Your task to perform on an android device: Open Google Chrome and click the shortcut for Amazon.com Image 0: 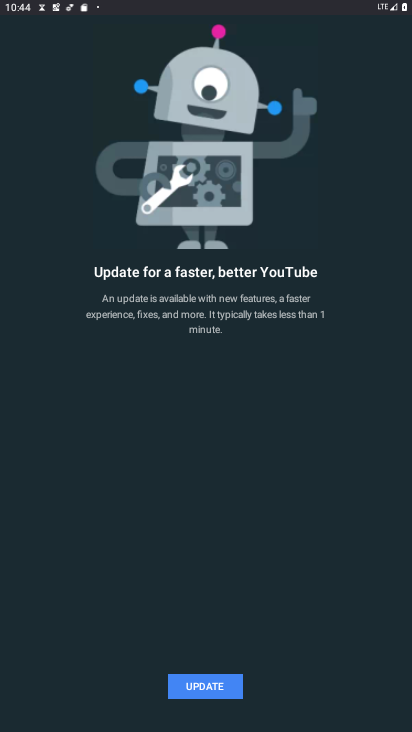
Step 0: press home button
Your task to perform on an android device: Open Google Chrome and click the shortcut for Amazon.com Image 1: 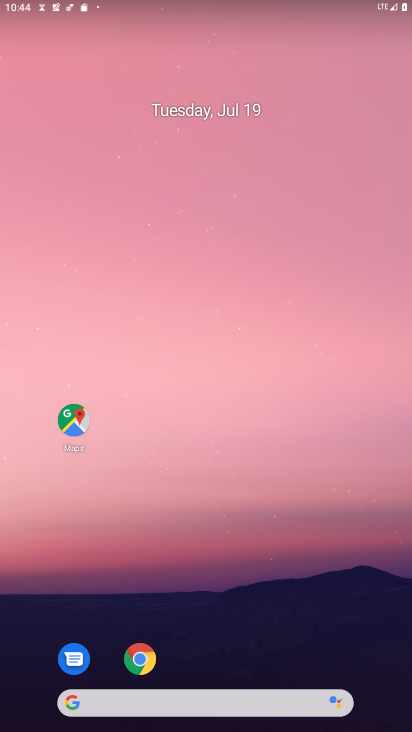
Step 1: drag from (202, 677) to (245, 239)
Your task to perform on an android device: Open Google Chrome and click the shortcut for Amazon.com Image 2: 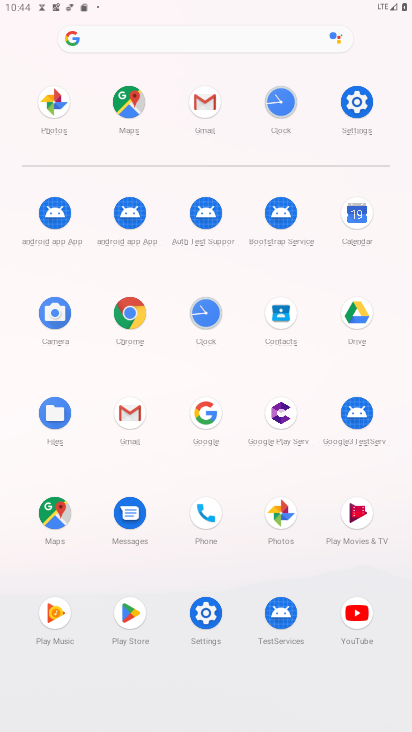
Step 2: click (126, 319)
Your task to perform on an android device: Open Google Chrome and click the shortcut for Amazon.com Image 3: 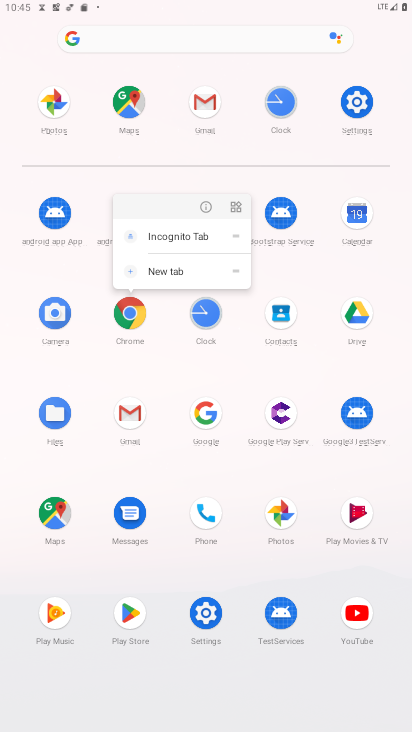
Step 3: click (206, 204)
Your task to perform on an android device: Open Google Chrome and click the shortcut for Amazon.com Image 4: 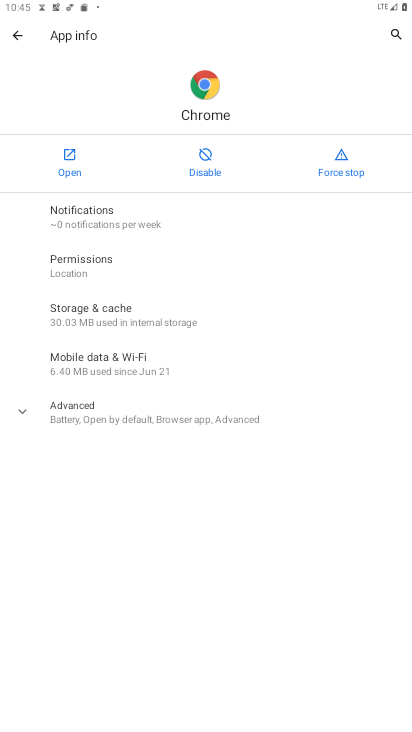
Step 4: click (66, 156)
Your task to perform on an android device: Open Google Chrome and click the shortcut for Amazon.com Image 5: 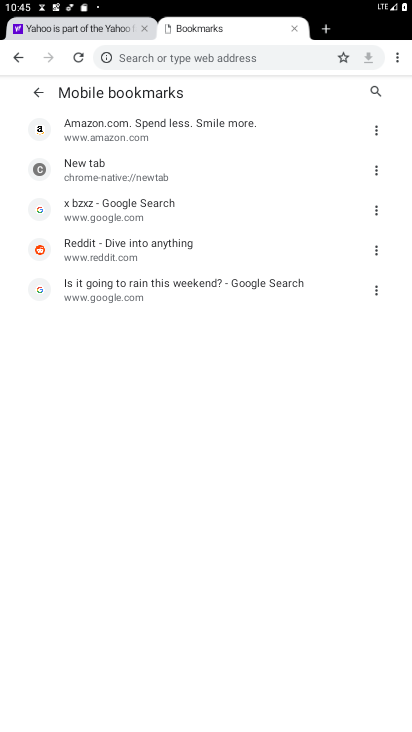
Step 5: click (293, 26)
Your task to perform on an android device: Open Google Chrome and click the shortcut for Amazon.com Image 6: 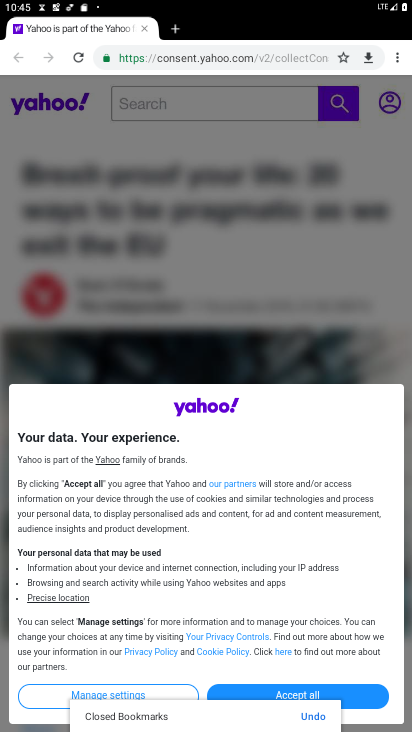
Step 6: click (178, 30)
Your task to perform on an android device: Open Google Chrome and click the shortcut for Amazon.com Image 7: 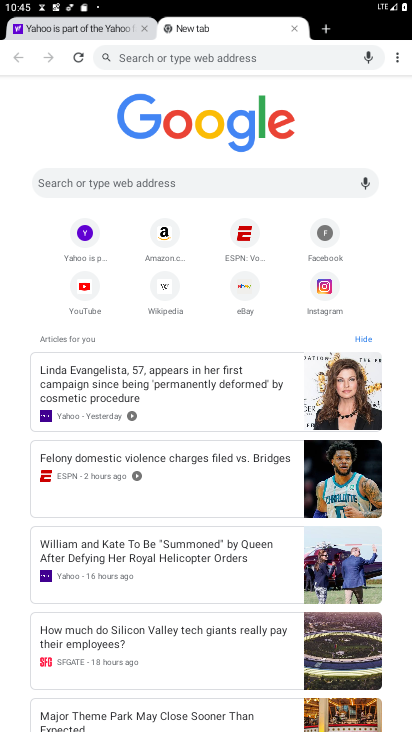
Step 7: click (165, 237)
Your task to perform on an android device: Open Google Chrome and click the shortcut for Amazon.com Image 8: 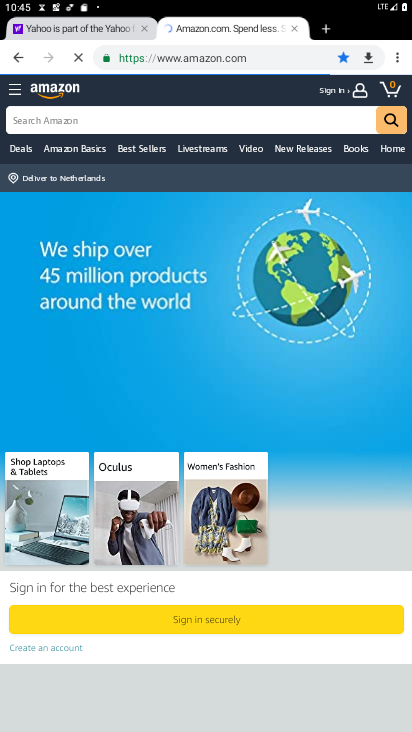
Step 8: task complete